Your task to perform on an android device: toggle improve location accuracy Image 0: 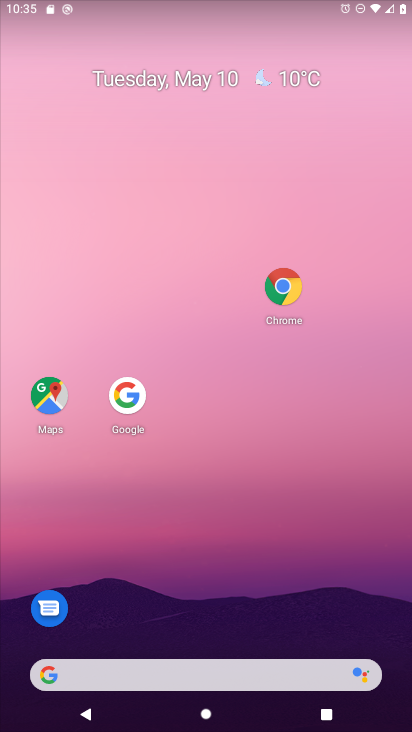
Step 0: drag from (164, 688) to (308, 161)
Your task to perform on an android device: toggle improve location accuracy Image 1: 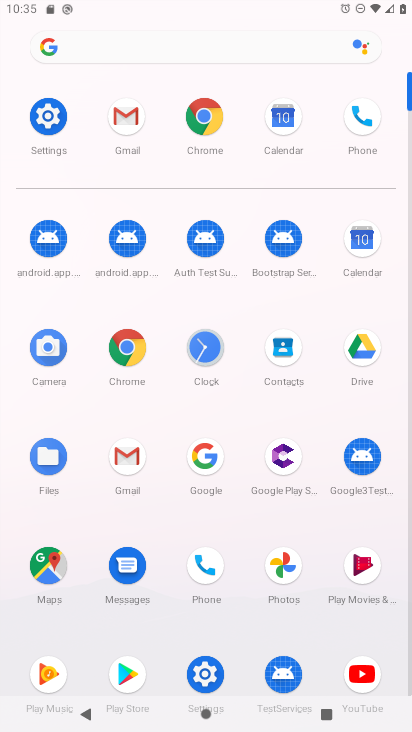
Step 1: click (55, 119)
Your task to perform on an android device: toggle improve location accuracy Image 2: 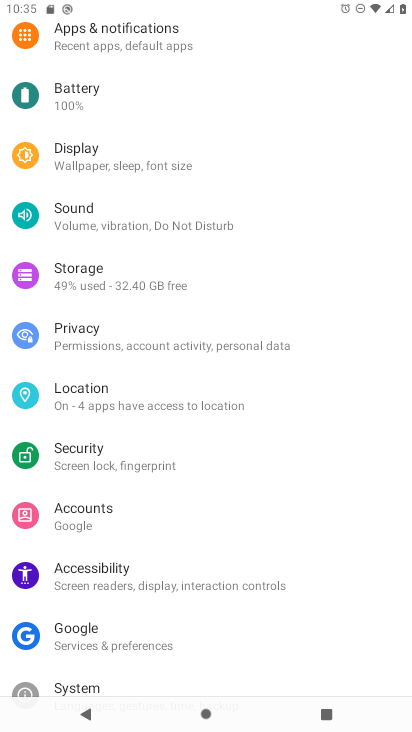
Step 2: click (118, 405)
Your task to perform on an android device: toggle improve location accuracy Image 3: 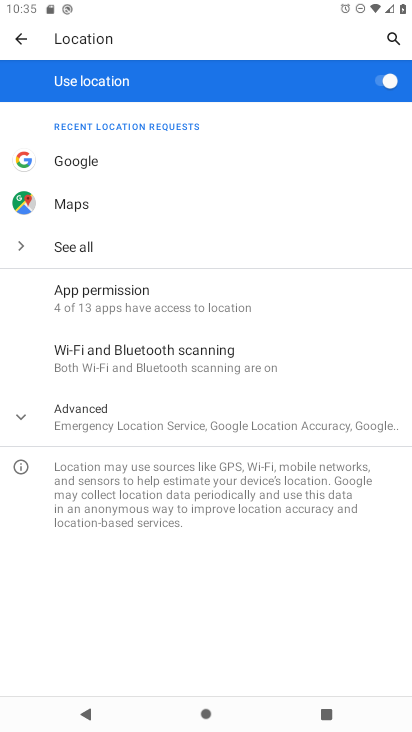
Step 3: click (84, 422)
Your task to perform on an android device: toggle improve location accuracy Image 4: 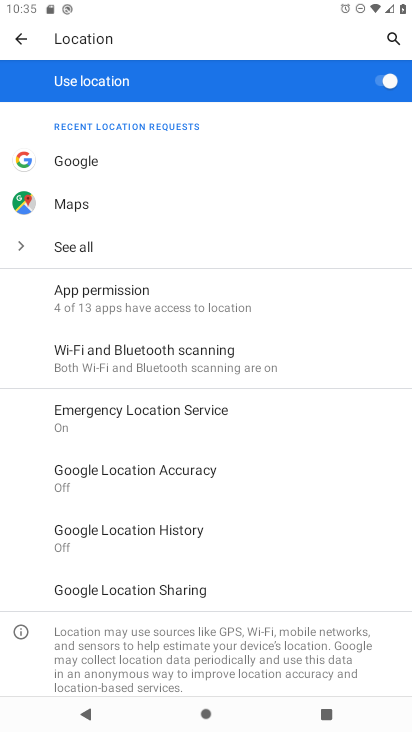
Step 4: click (142, 471)
Your task to perform on an android device: toggle improve location accuracy Image 5: 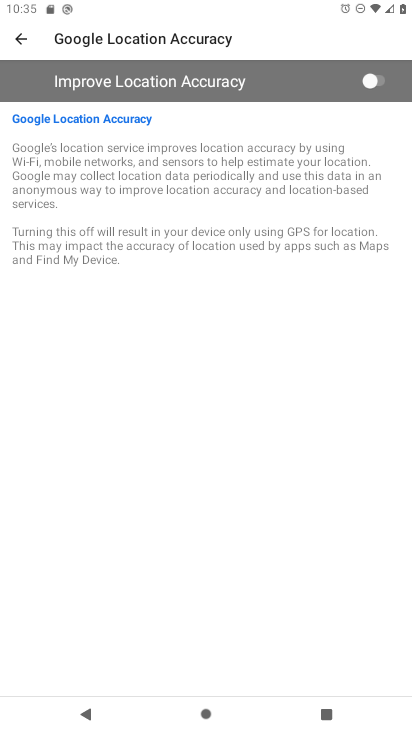
Step 5: click (380, 83)
Your task to perform on an android device: toggle improve location accuracy Image 6: 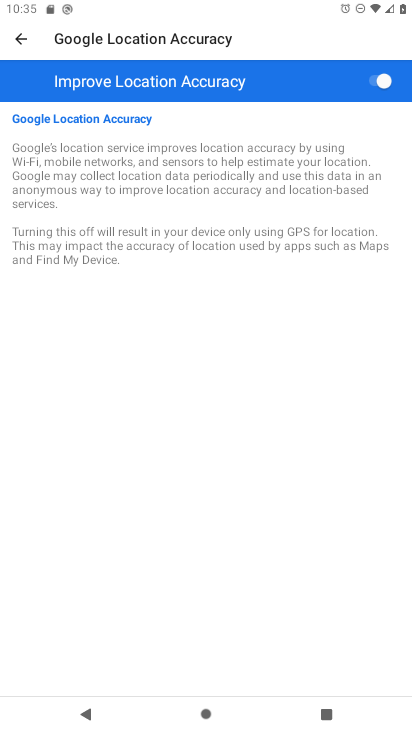
Step 6: task complete